Your task to perform on an android device: add a contact in the contacts app Image 0: 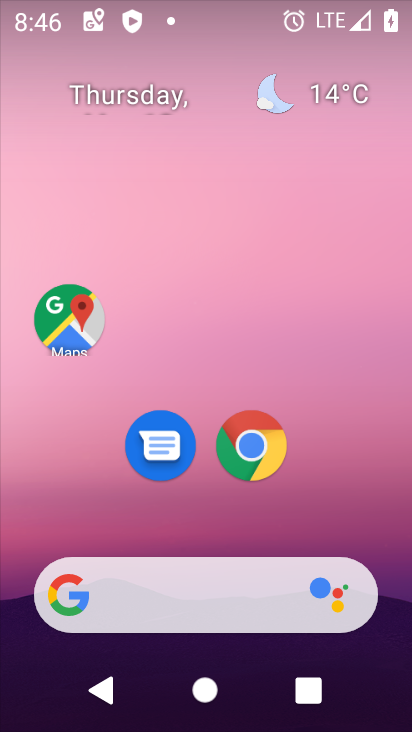
Step 0: drag from (203, 726) to (204, 101)
Your task to perform on an android device: add a contact in the contacts app Image 1: 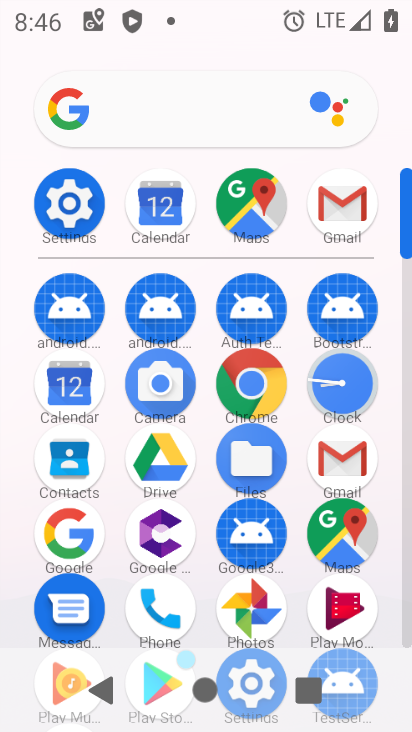
Step 1: click (73, 457)
Your task to perform on an android device: add a contact in the contacts app Image 2: 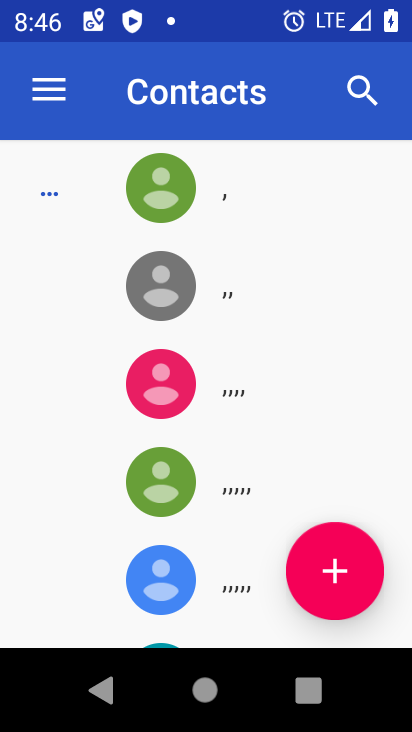
Step 2: click (335, 561)
Your task to perform on an android device: add a contact in the contacts app Image 3: 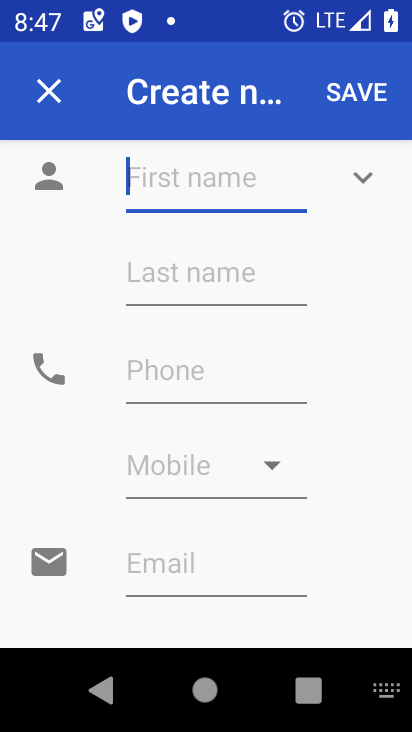
Step 3: type "thn chu"
Your task to perform on an android device: add a contact in the contacts app Image 4: 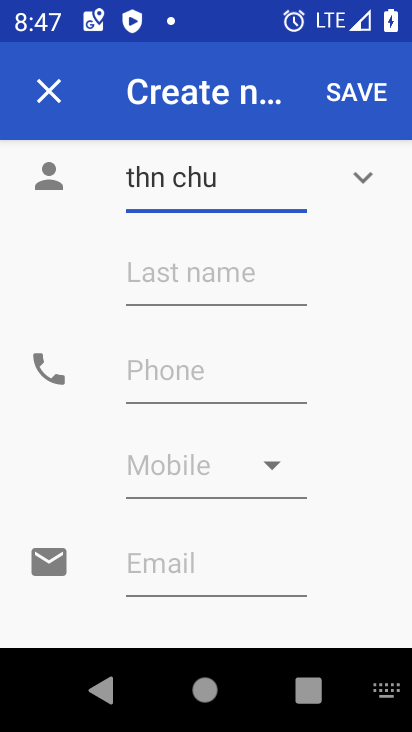
Step 4: click (177, 371)
Your task to perform on an android device: add a contact in the contacts app Image 5: 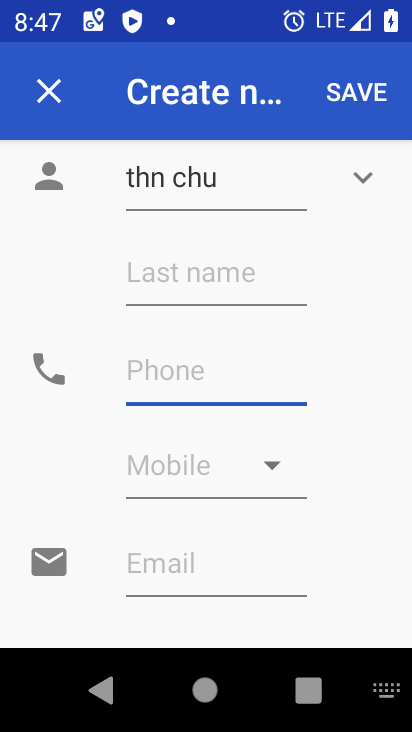
Step 5: type "666654"
Your task to perform on an android device: add a contact in the contacts app Image 6: 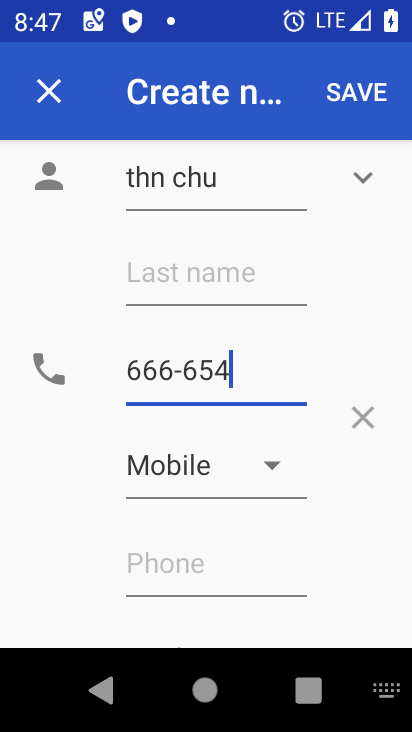
Step 6: click (364, 94)
Your task to perform on an android device: add a contact in the contacts app Image 7: 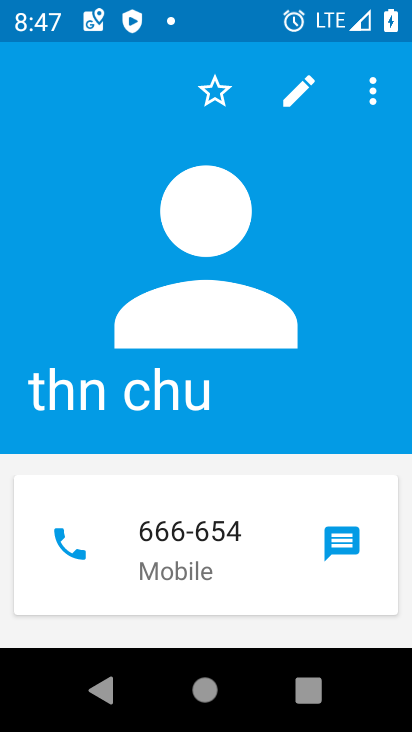
Step 7: task complete